Your task to perform on an android device: open chrome and create a bookmark for the current page Image 0: 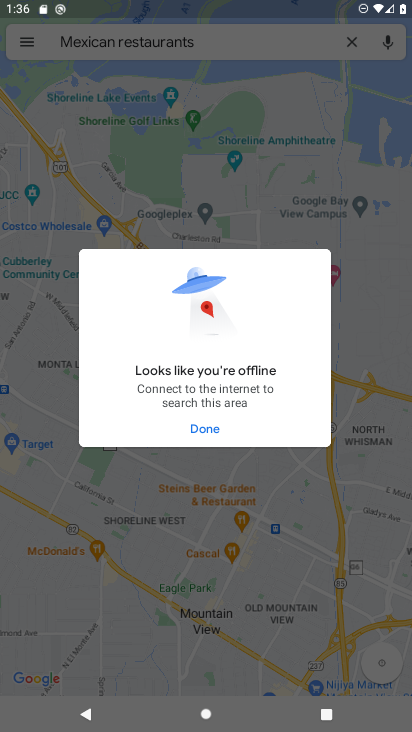
Step 0: drag from (239, 593) to (239, 325)
Your task to perform on an android device: open chrome and create a bookmark for the current page Image 1: 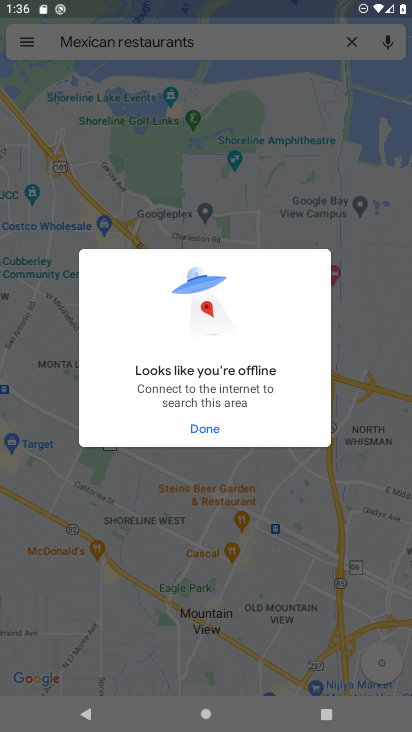
Step 1: press home button
Your task to perform on an android device: open chrome and create a bookmark for the current page Image 2: 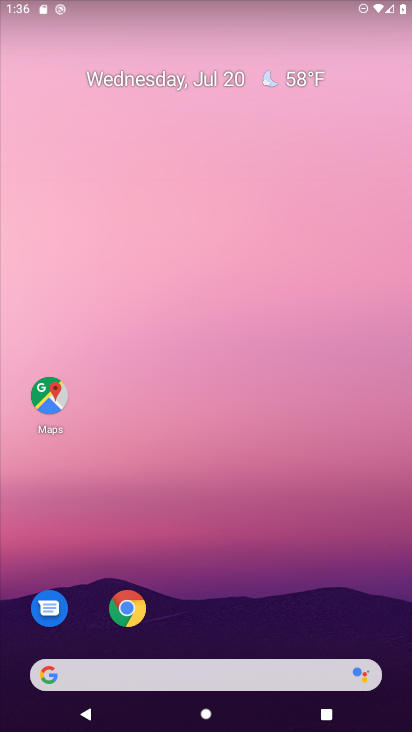
Step 2: drag from (263, 725) to (249, 142)
Your task to perform on an android device: open chrome and create a bookmark for the current page Image 3: 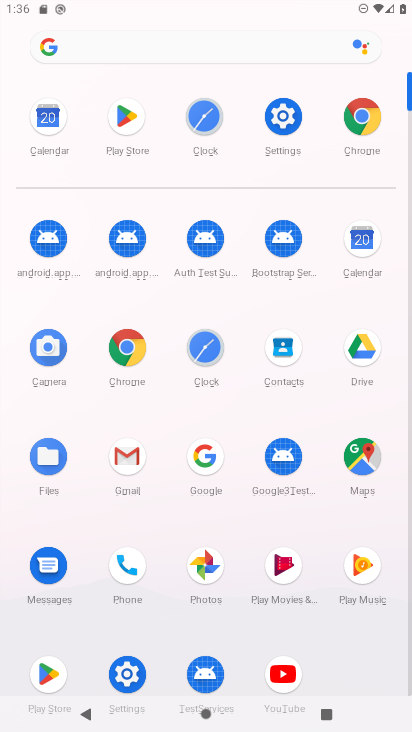
Step 3: click (131, 342)
Your task to perform on an android device: open chrome and create a bookmark for the current page Image 4: 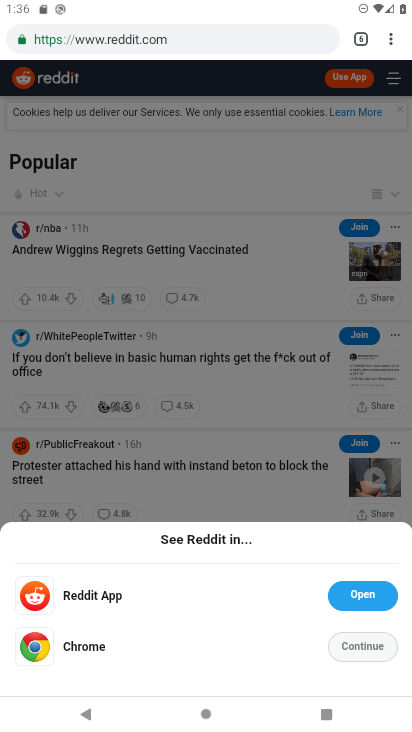
Step 4: click (389, 42)
Your task to perform on an android device: open chrome and create a bookmark for the current page Image 5: 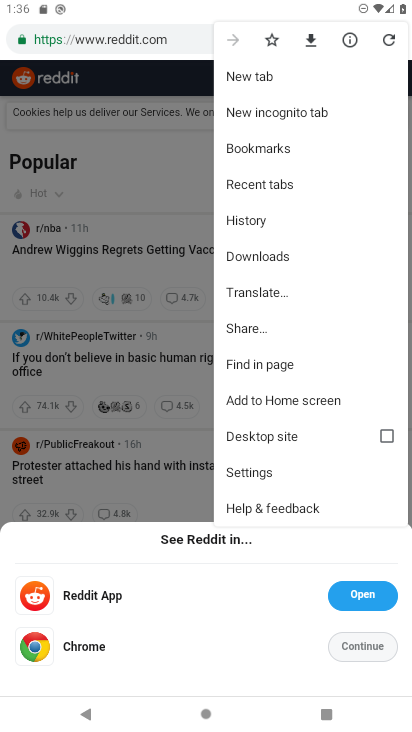
Step 5: click (270, 35)
Your task to perform on an android device: open chrome and create a bookmark for the current page Image 6: 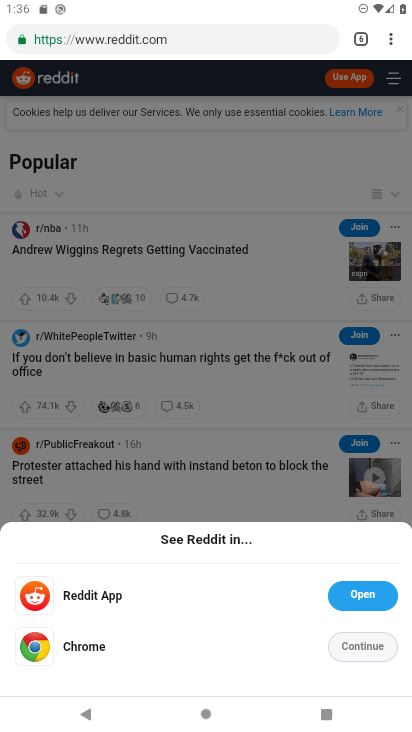
Step 6: task complete